Your task to perform on an android device: remove spam from my inbox in the gmail app Image 0: 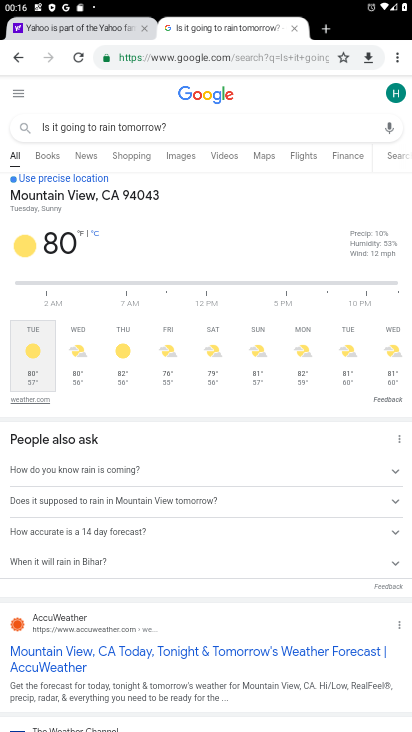
Step 0: press home button
Your task to perform on an android device: remove spam from my inbox in the gmail app Image 1: 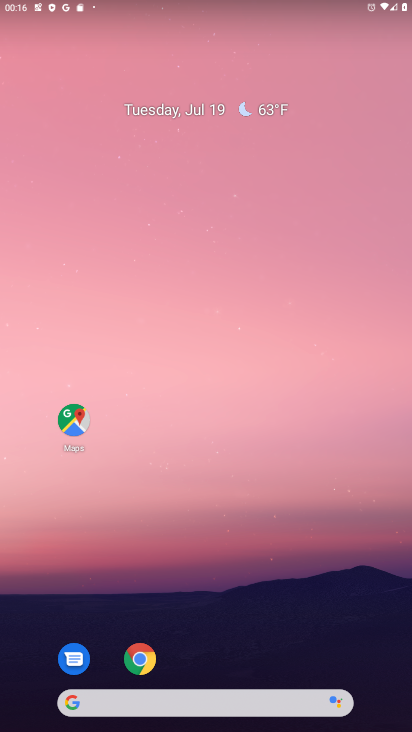
Step 1: drag from (208, 654) to (163, 20)
Your task to perform on an android device: remove spam from my inbox in the gmail app Image 2: 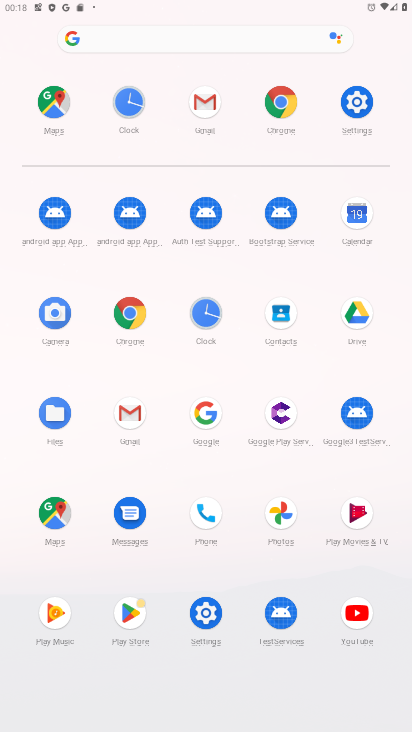
Step 2: click (135, 422)
Your task to perform on an android device: remove spam from my inbox in the gmail app Image 3: 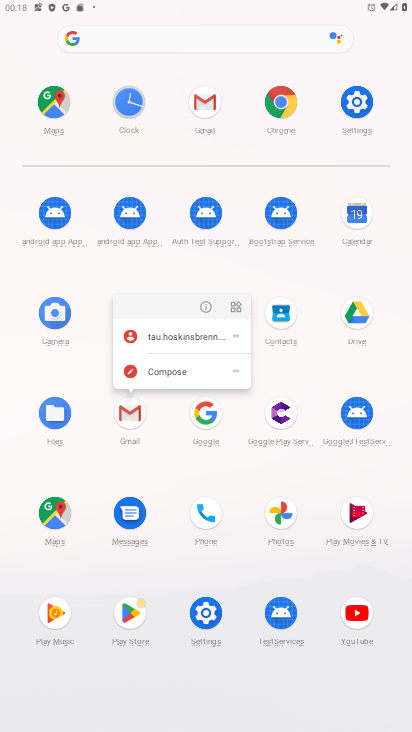
Step 3: click (115, 412)
Your task to perform on an android device: remove spam from my inbox in the gmail app Image 4: 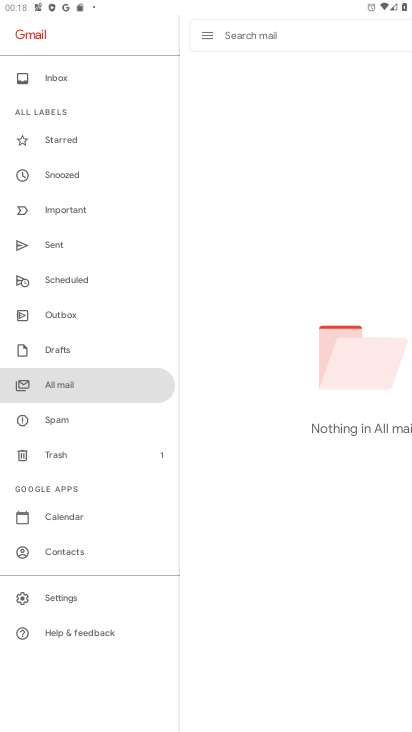
Step 4: task complete